Your task to perform on an android device: toggle notifications settings in the gmail app Image 0: 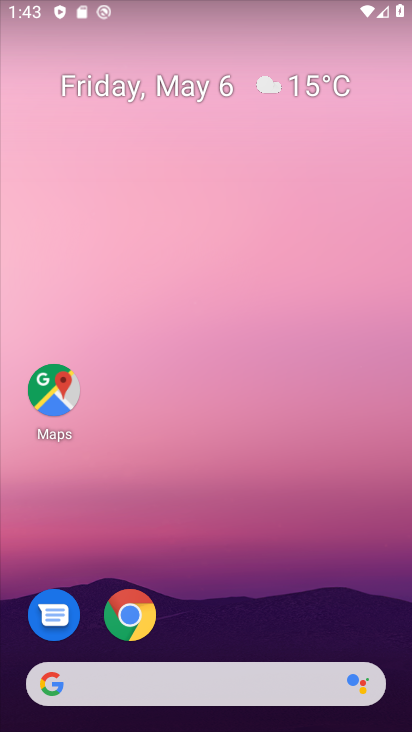
Step 0: drag from (291, 618) to (331, 73)
Your task to perform on an android device: toggle notifications settings in the gmail app Image 1: 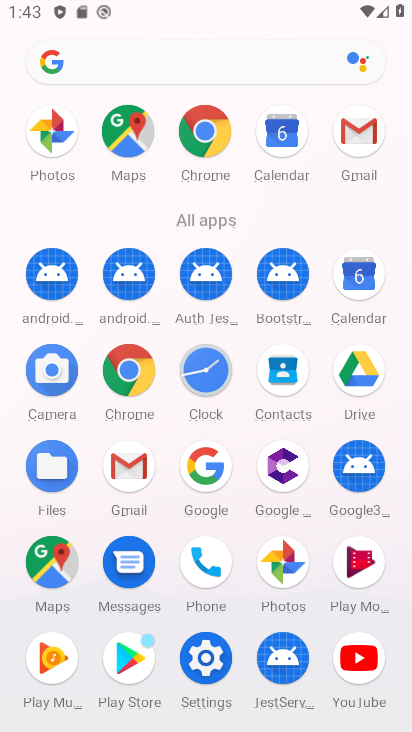
Step 1: click (138, 472)
Your task to perform on an android device: toggle notifications settings in the gmail app Image 2: 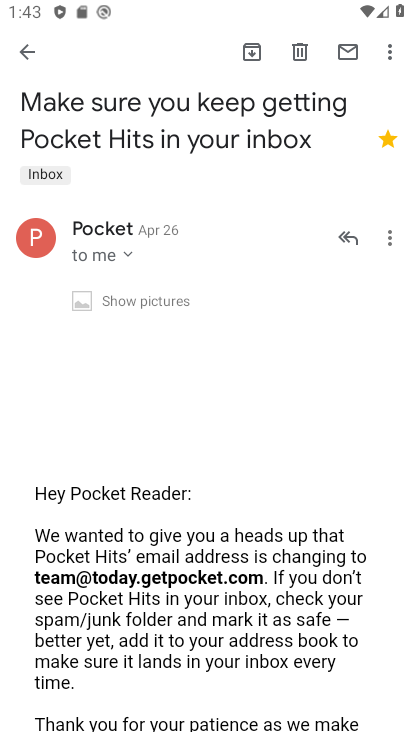
Step 2: press back button
Your task to perform on an android device: toggle notifications settings in the gmail app Image 3: 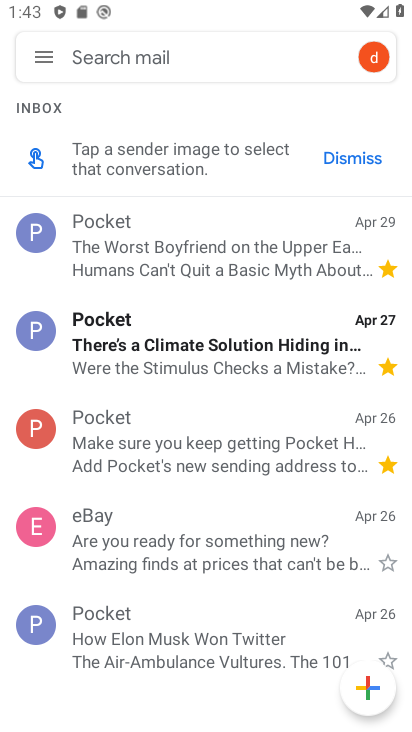
Step 3: click (45, 61)
Your task to perform on an android device: toggle notifications settings in the gmail app Image 4: 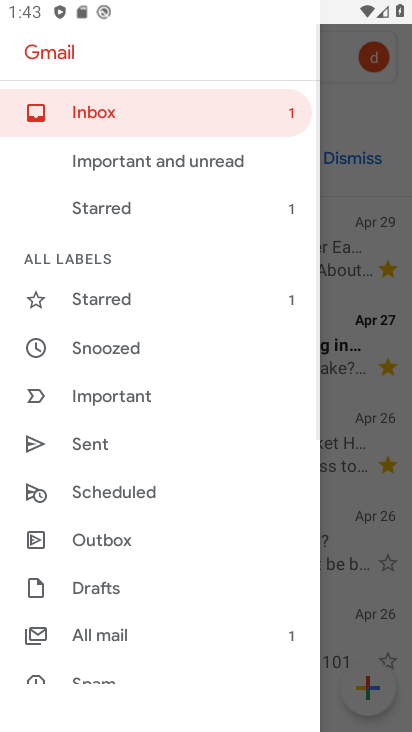
Step 4: drag from (197, 614) to (206, 276)
Your task to perform on an android device: toggle notifications settings in the gmail app Image 5: 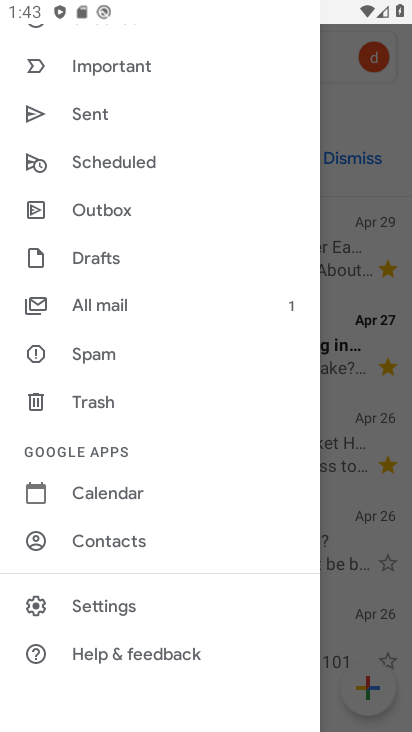
Step 5: click (121, 610)
Your task to perform on an android device: toggle notifications settings in the gmail app Image 6: 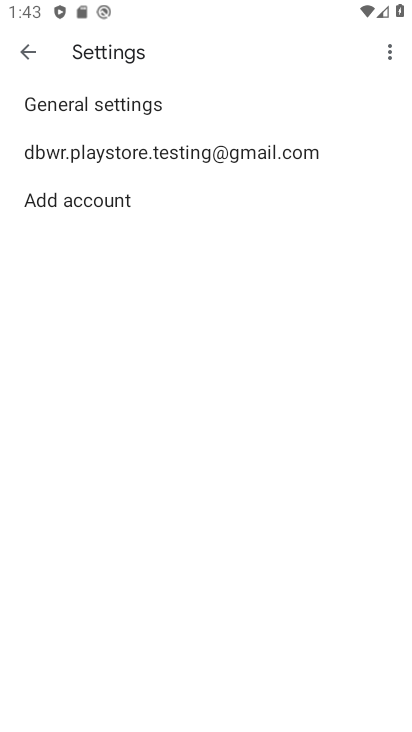
Step 6: click (179, 165)
Your task to perform on an android device: toggle notifications settings in the gmail app Image 7: 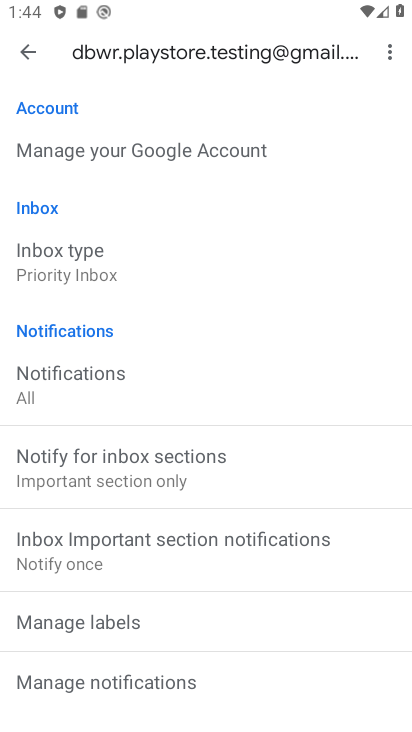
Step 7: click (117, 385)
Your task to perform on an android device: toggle notifications settings in the gmail app Image 8: 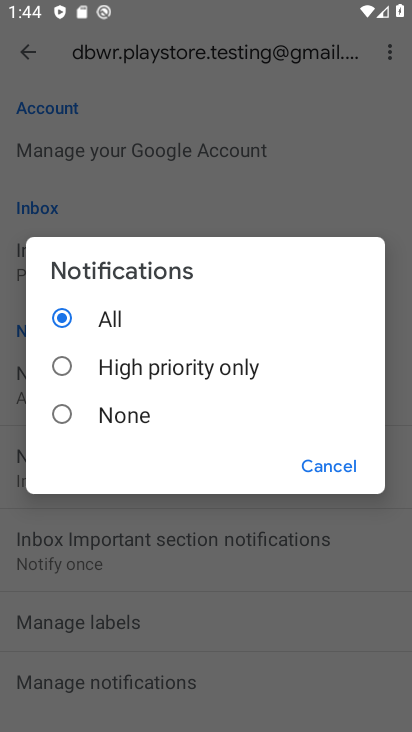
Step 8: click (119, 374)
Your task to perform on an android device: toggle notifications settings in the gmail app Image 9: 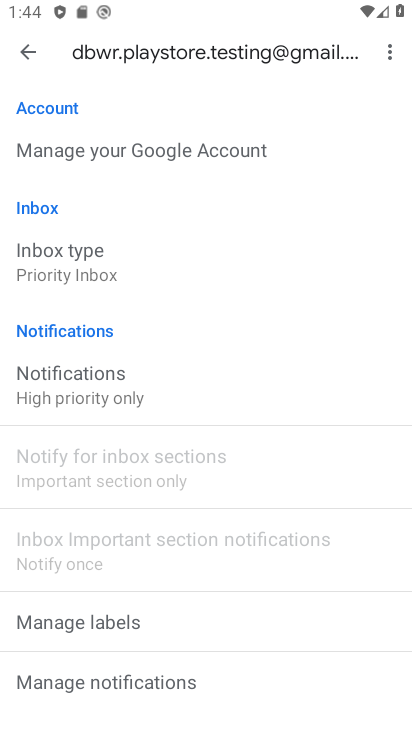
Step 9: drag from (164, 604) to (185, 405)
Your task to perform on an android device: toggle notifications settings in the gmail app Image 10: 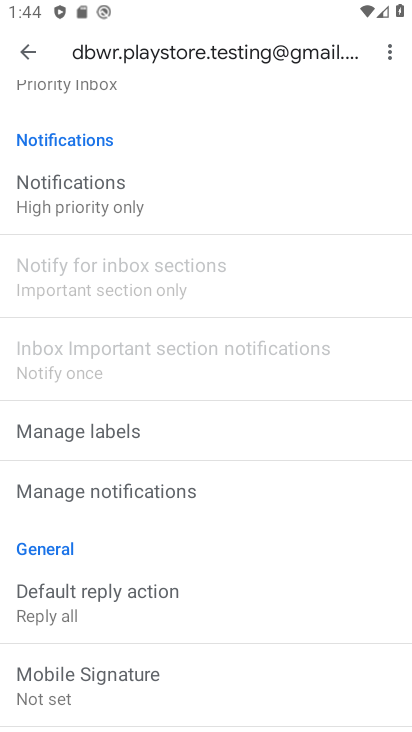
Step 10: click (170, 503)
Your task to perform on an android device: toggle notifications settings in the gmail app Image 11: 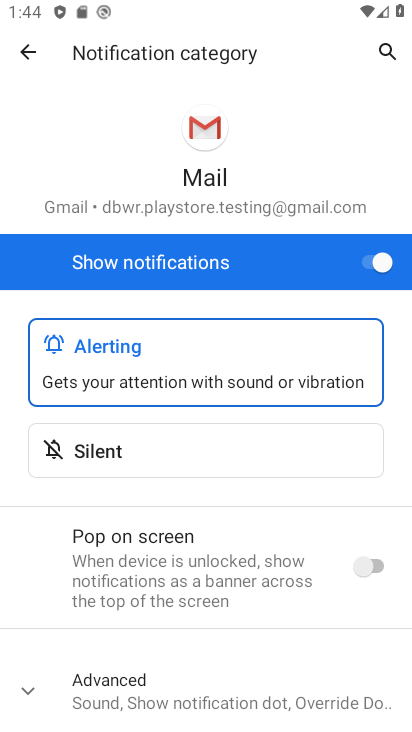
Step 11: click (382, 266)
Your task to perform on an android device: toggle notifications settings in the gmail app Image 12: 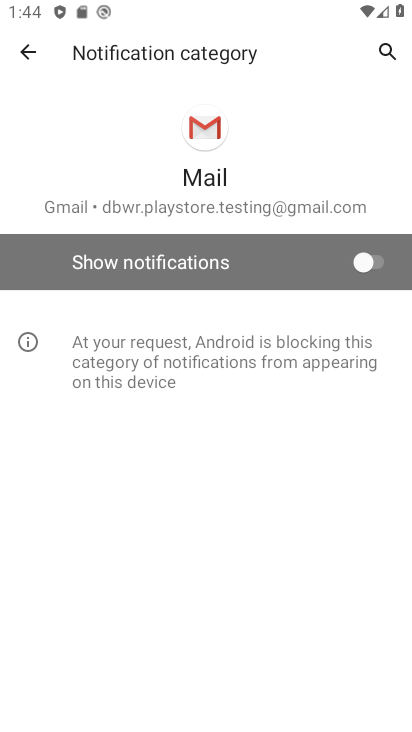
Step 12: task complete